Your task to perform on an android device: Toggle the flashlight Image 0: 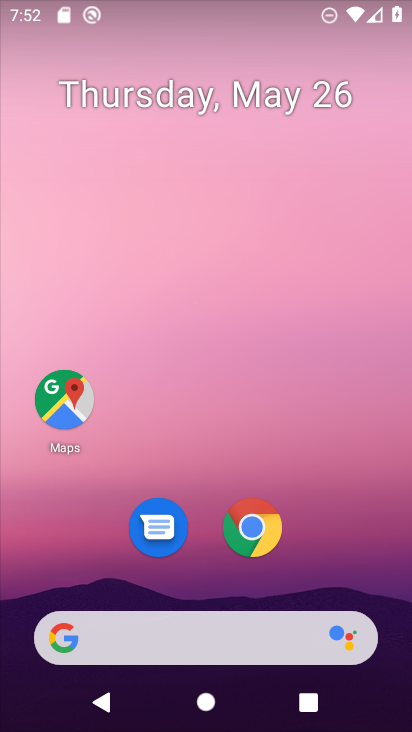
Step 0: drag from (39, 456) to (164, 139)
Your task to perform on an android device: Toggle the flashlight Image 1: 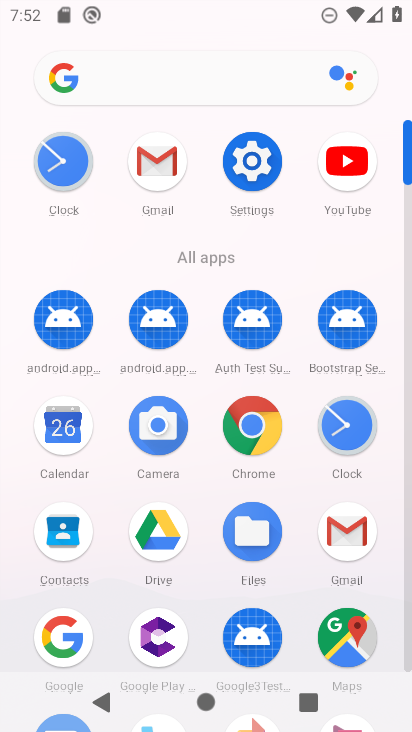
Step 1: click (226, 169)
Your task to perform on an android device: Toggle the flashlight Image 2: 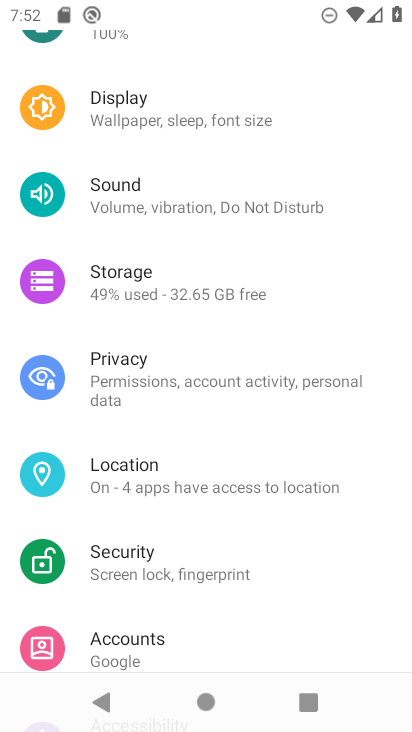
Step 2: click (239, 215)
Your task to perform on an android device: Toggle the flashlight Image 3: 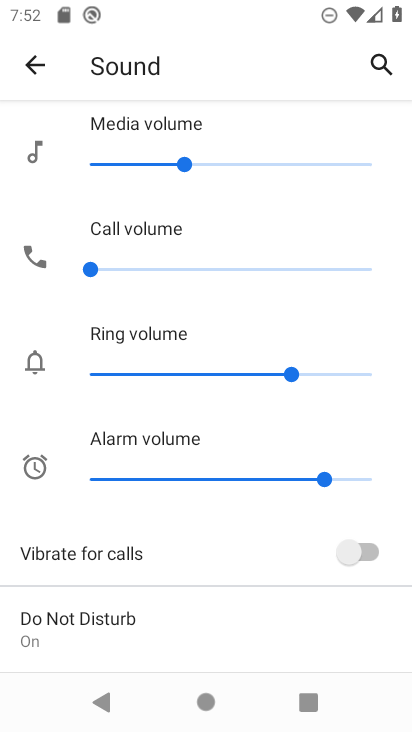
Step 3: task complete